Your task to perform on an android device: Open Youtube and go to "Your channel" Image 0: 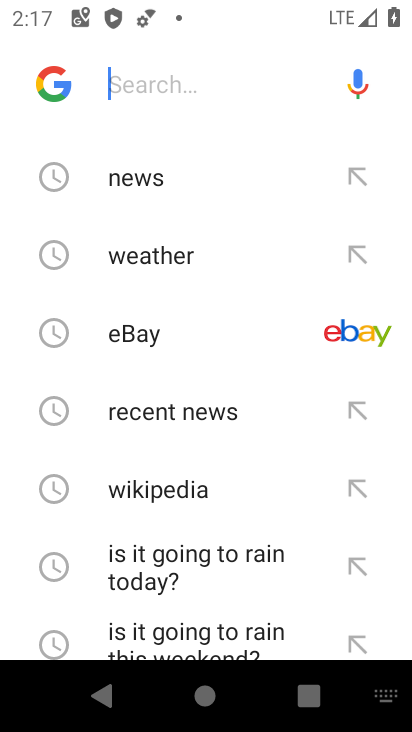
Step 0: press back button
Your task to perform on an android device: Open Youtube and go to "Your channel" Image 1: 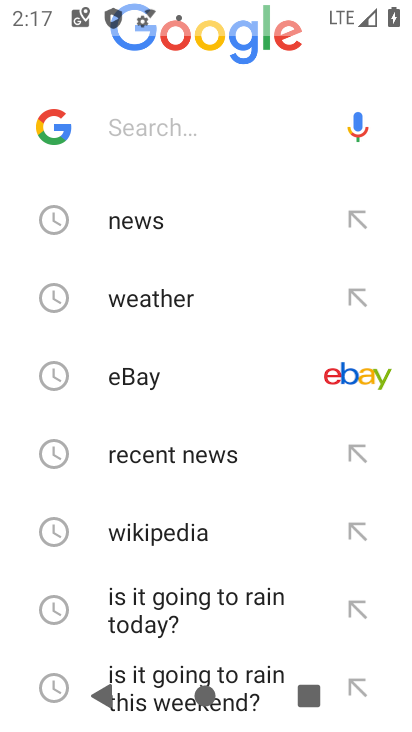
Step 1: press back button
Your task to perform on an android device: Open Youtube and go to "Your channel" Image 2: 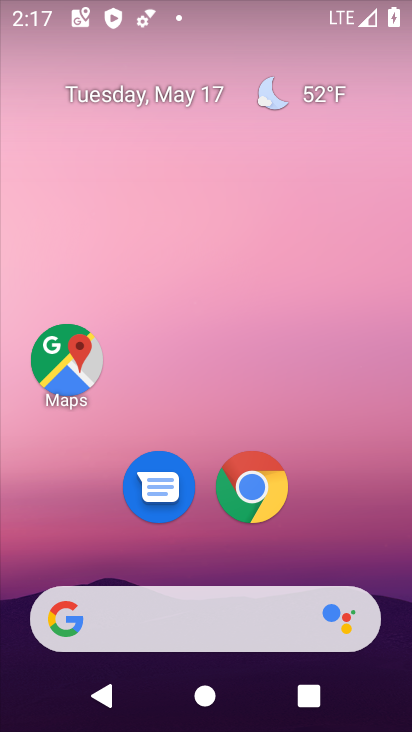
Step 2: click (365, 306)
Your task to perform on an android device: Open Youtube and go to "Your channel" Image 3: 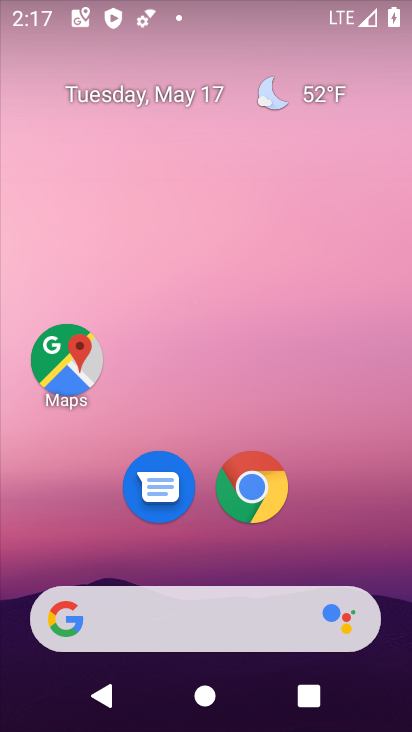
Step 3: drag from (392, 649) to (355, 281)
Your task to perform on an android device: Open Youtube and go to "Your channel" Image 4: 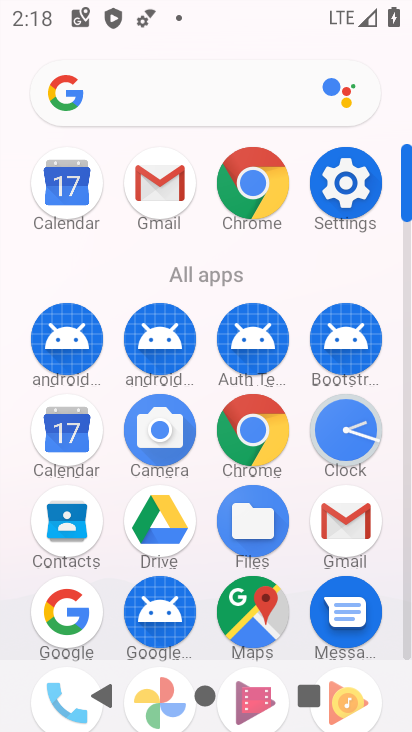
Step 4: click (408, 135)
Your task to perform on an android device: Open Youtube and go to "Your channel" Image 5: 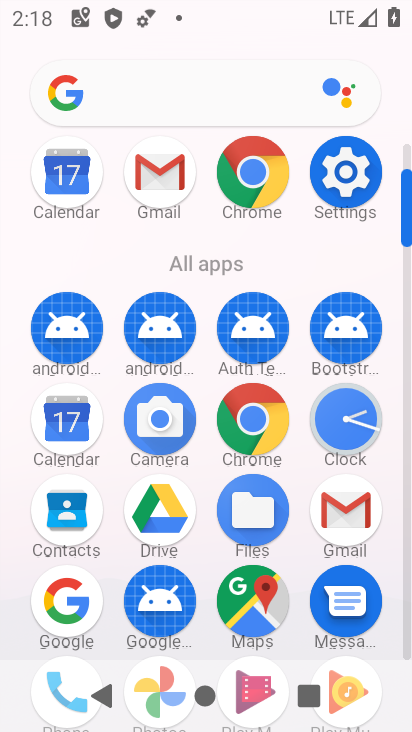
Step 5: drag from (408, 182) to (408, 125)
Your task to perform on an android device: Open Youtube and go to "Your channel" Image 6: 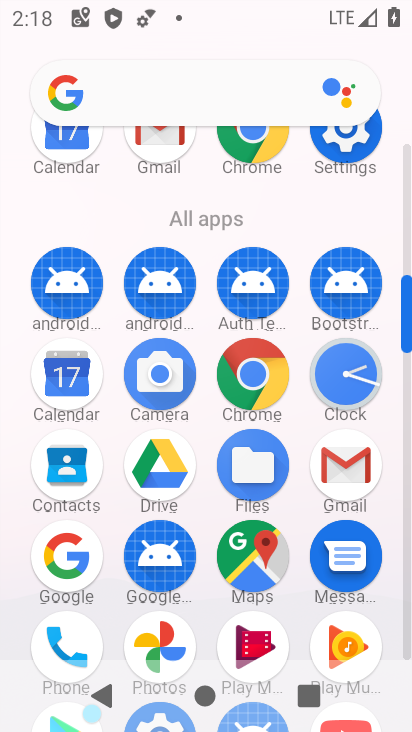
Step 6: drag from (406, 282) to (403, 236)
Your task to perform on an android device: Open Youtube and go to "Your channel" Image 7: 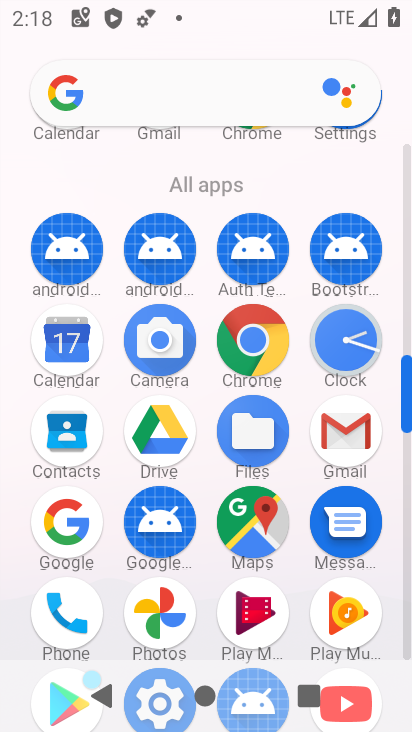
Step 7: drag from (405, 362) to (401, 289)
Your task to perform on an android device: Open Youtube and go to "Your channel" Image 8: 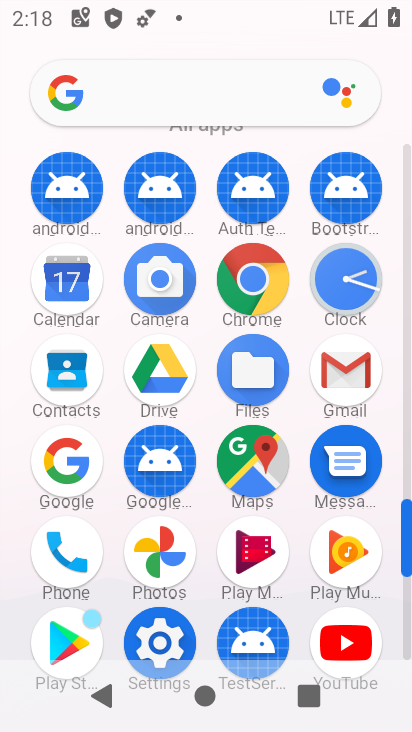
Step 8: click (342, 644)
Your task to perform on an android device: Open Youtube and go to "Your channel" Image 9: 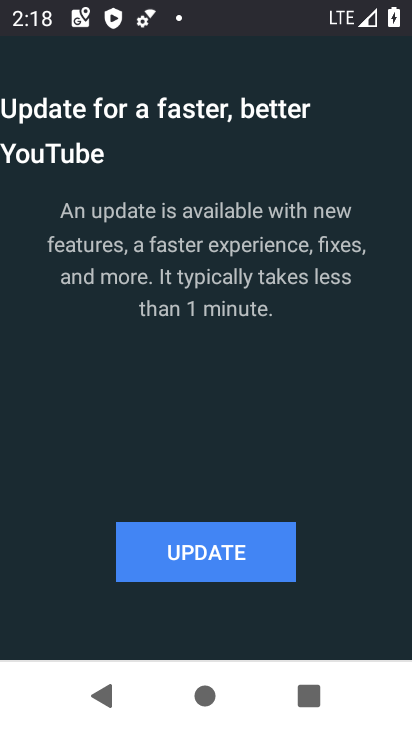
Step 9: click (221, 536)
Your task to perform on an android device: Open Youtube and go to "Your channel" Image 10: 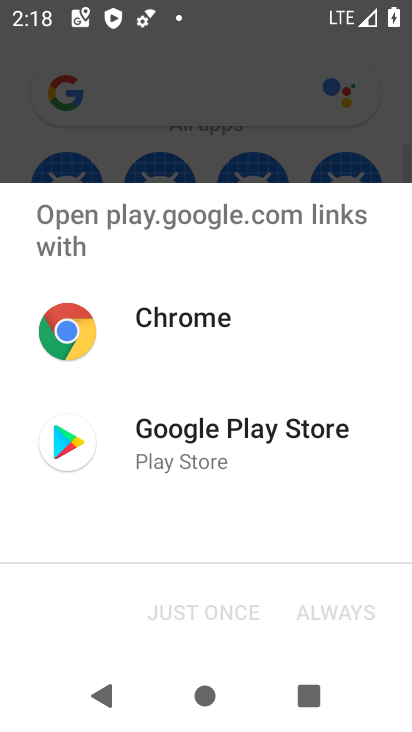
Step 10: click (214, 430)
Your task to perform on an android device: Open Youtube and go to "Your channel" Image 11: 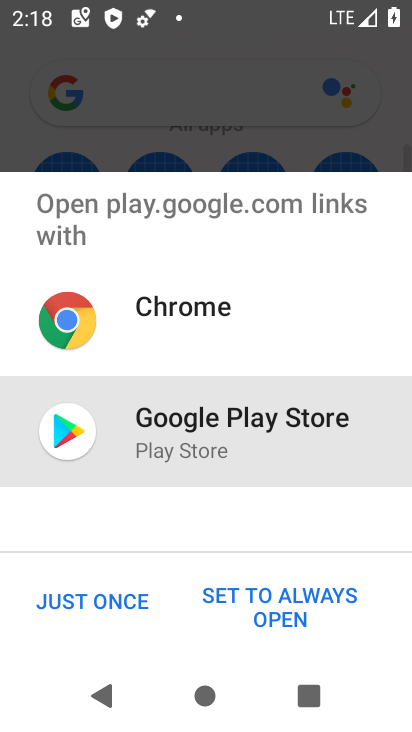
Step 11: click (119, 598)
Your task to perform on an android device: Open Youtube and go to "Your channel" Image 12: 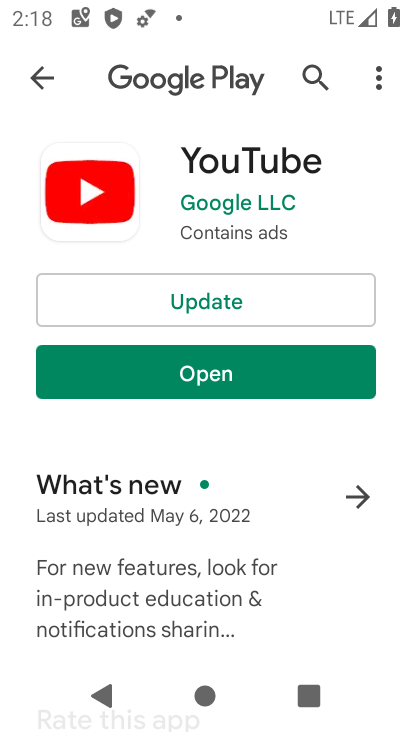
Step 12: click (224, 303)
Your task to perform on an android device: Open Youtube and go to "Your channel" Image 13: 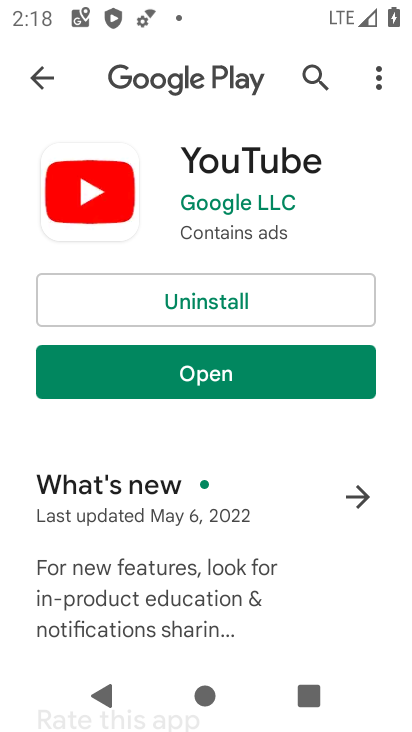
Step 13: click (224, 378)
Your task to perform on an android device: Open Youtube and go to "Your channel" Image 14: 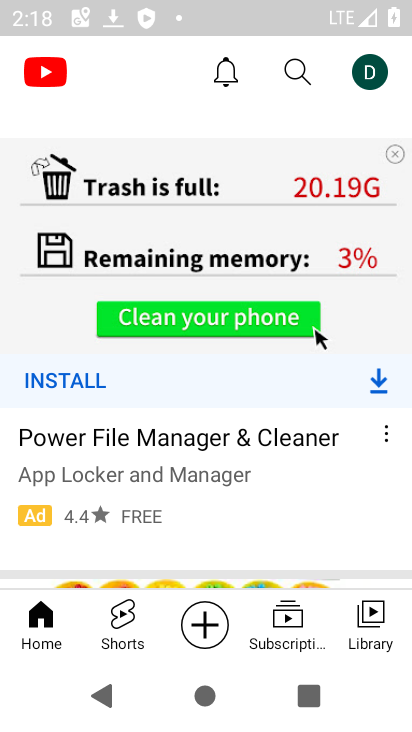
Step 14: task complete